Your task to perform on an android device: turn on airplane mode Image 0: 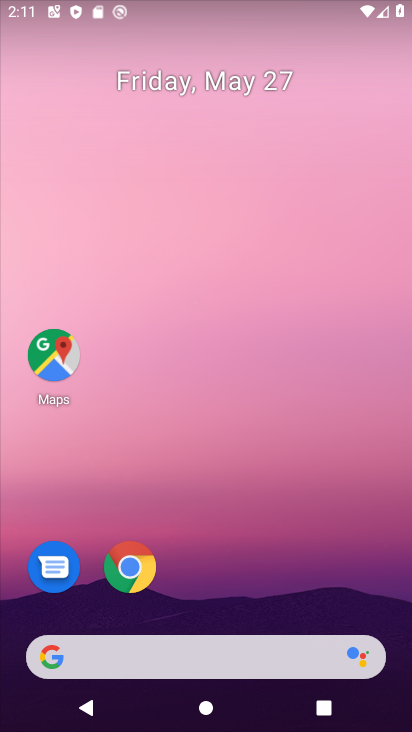
Step 0: drag from (256, 7) to (223, 376)
Your task to perform on an android device: turn on airplane mode Image 1: 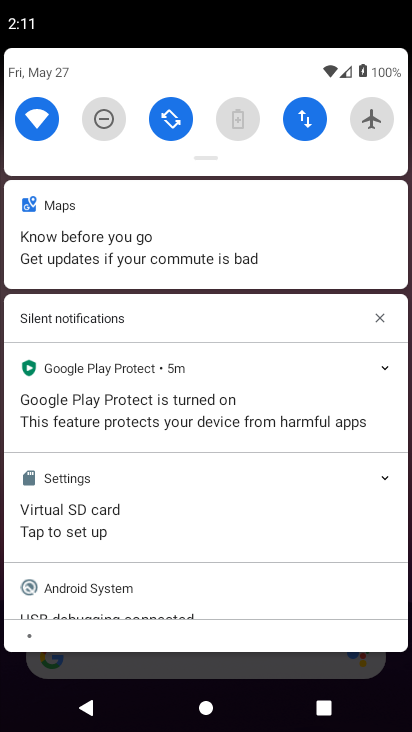
Step 1: drag from (268, 127) to (225, 424)
Your task to perform on an android device: turn on airplane mode Image 2: 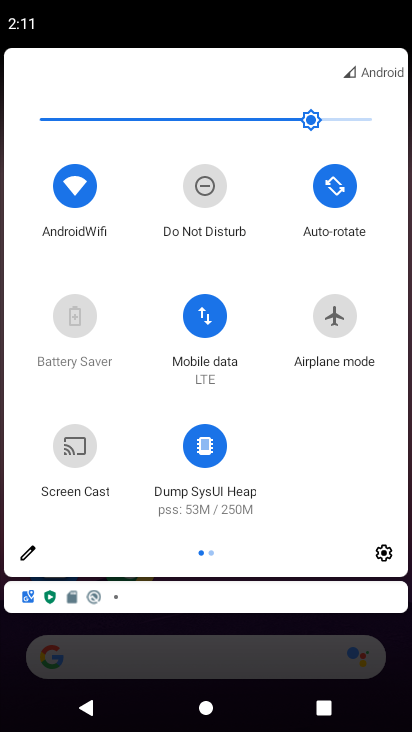
Step 2: click (331, 313)
Your task to perform on an android device: turn on airplane mode Image 3: 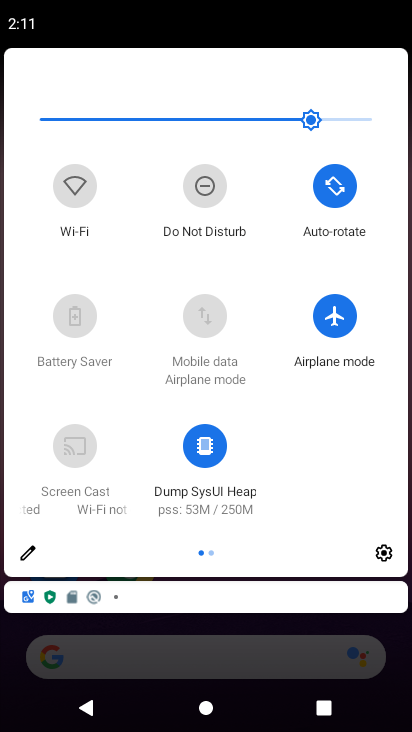
Step 3: task complete